Your task to perform on an android device: turn on bluetooth scan Image 0: 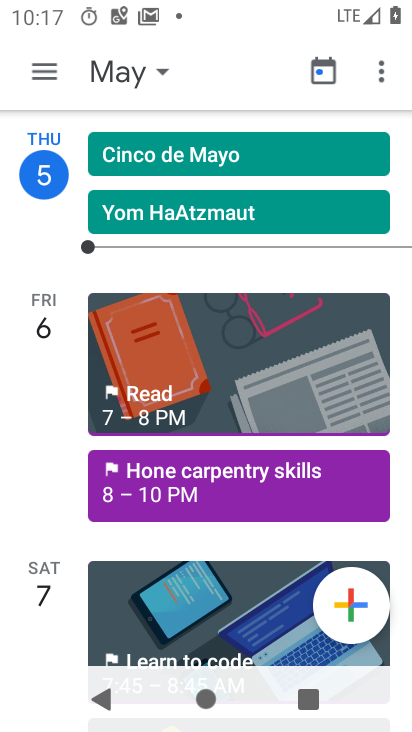
Step 0: press home button
Your task to perform on an android device: turn on bluetooth scan Image 1: 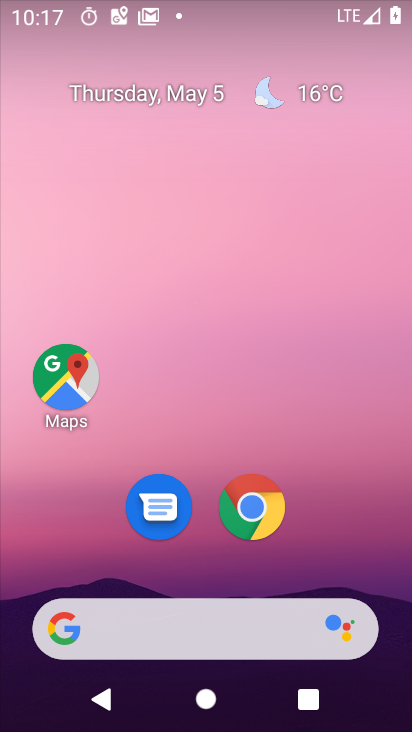
Step 1: drag from (171, 588) to (210, 141)
Your task to perform on an android device: turn on bluetooth scan Image 2: 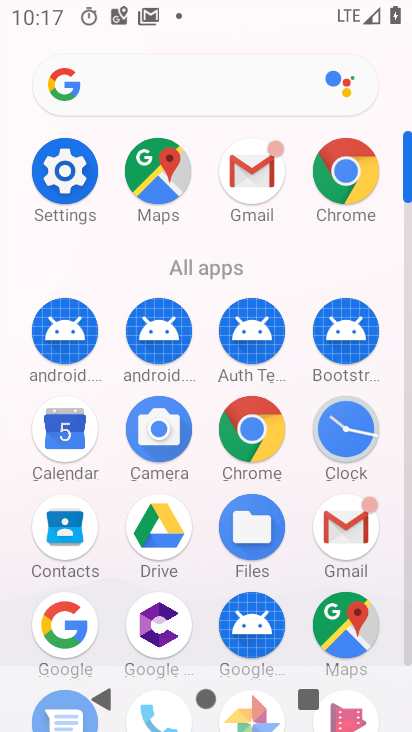
Step 2: drag from (211, 611) to (206, 223)
Your task to perform on an android device: turn on bluetooth scan Image 3: 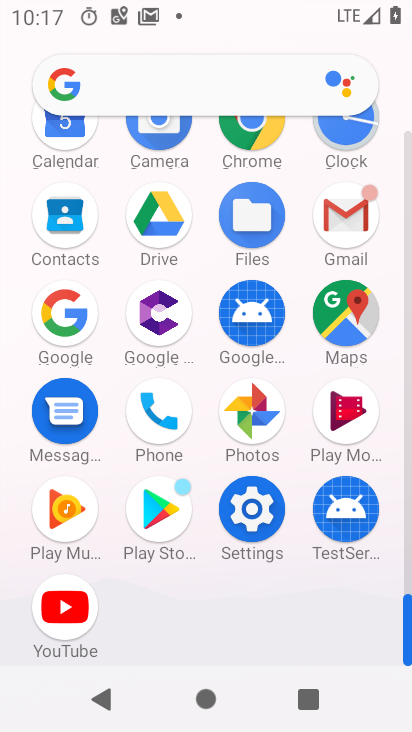
Step 3: click (258, 500)
Your task to perform on an android device: turn on bluetooth scan Image 4: 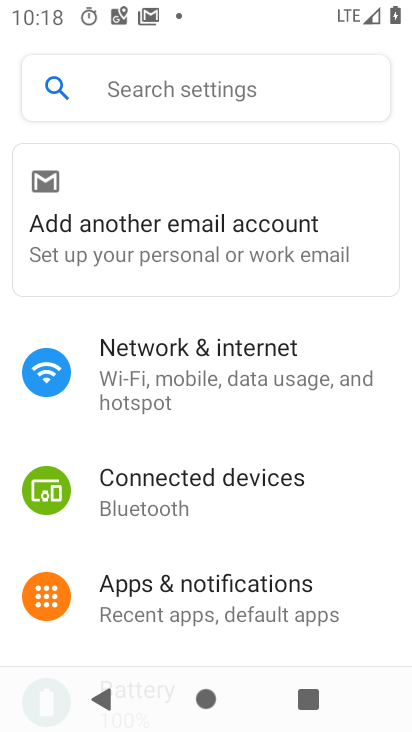
Step 4: drag from (235, 548) to (277, 251)
Your task to perform on an android device: turn on bluetooth scan Image 5: 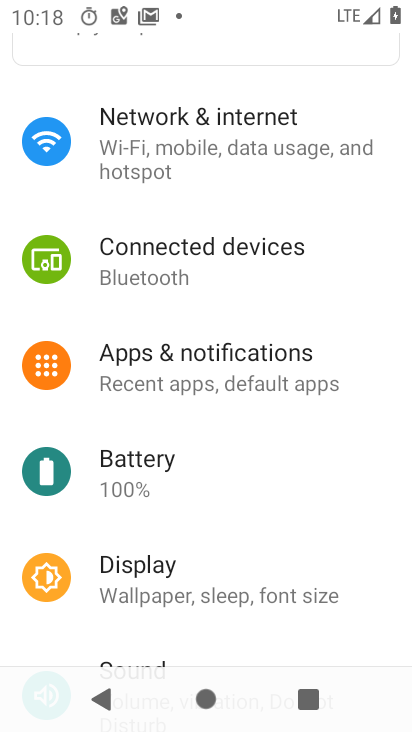
Step 5: drag from (197, 535) to (249, 198)
Your task to perform on an android device: turn on bluetooth scan Image 6: 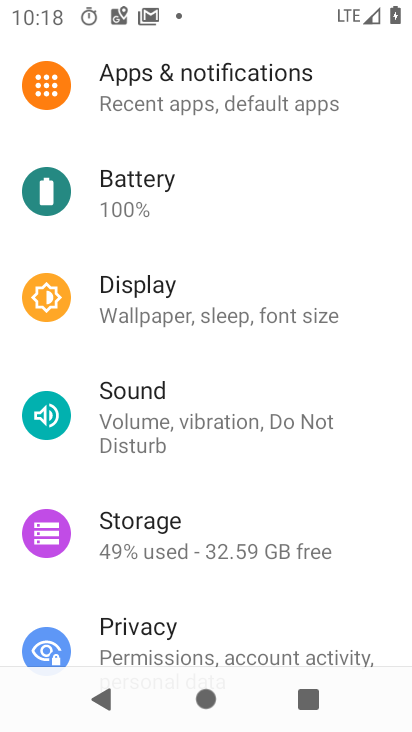
Step 6: drag from (213, 595) to (237, 322)
Your task to perform on an android device: turn on bluetooth scan Image 7: 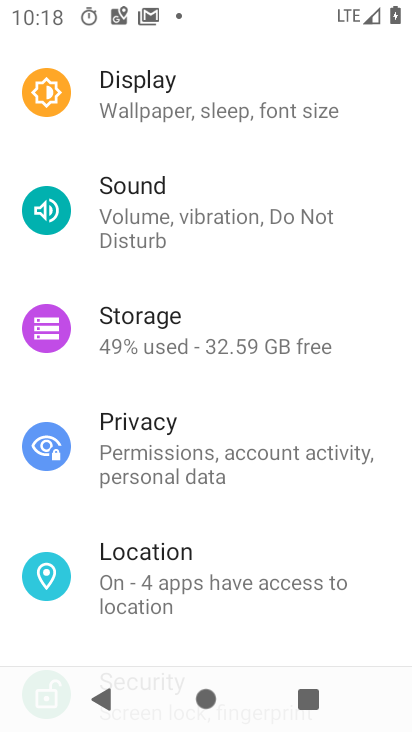
Step 7: drag from (204, 577) to (230, 346)
Your task to perform on an android device: turn on bluetooth scan Image 8: 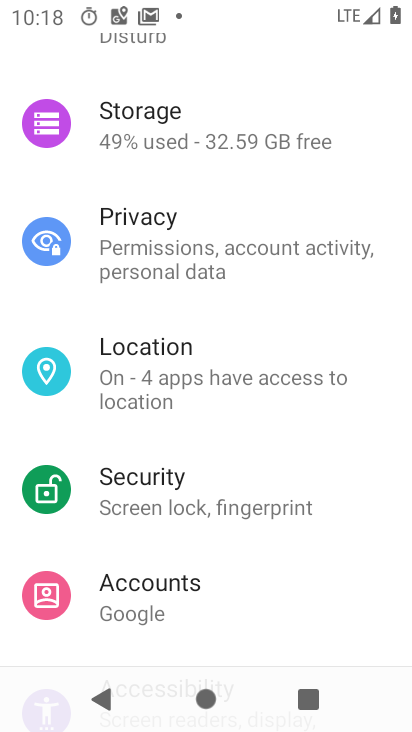
Step 8: drag from (201, 603) to (269, 283)
Your task to perform on an android device: turn on bluetooth scan Image 9: 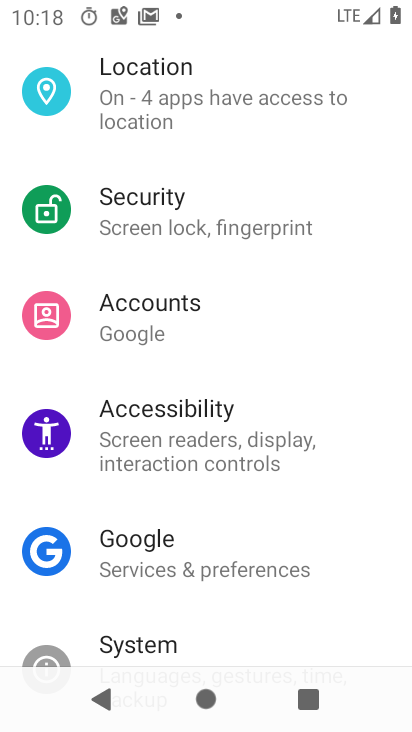
Step 9: drag from (175, 557) to (215, 342)
Your task to perform on an android device: turn on bluetooth scan Image 10: 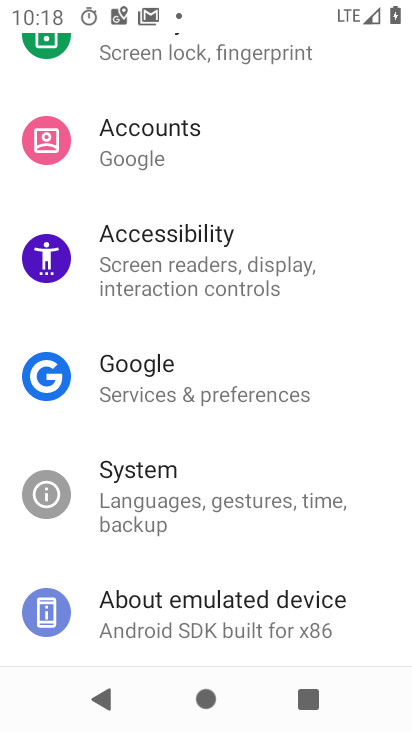
Step 10: drag from (183, 199) to (170, 629)
Your task to perform on an android device: turn on bluetooth scan Image 11: 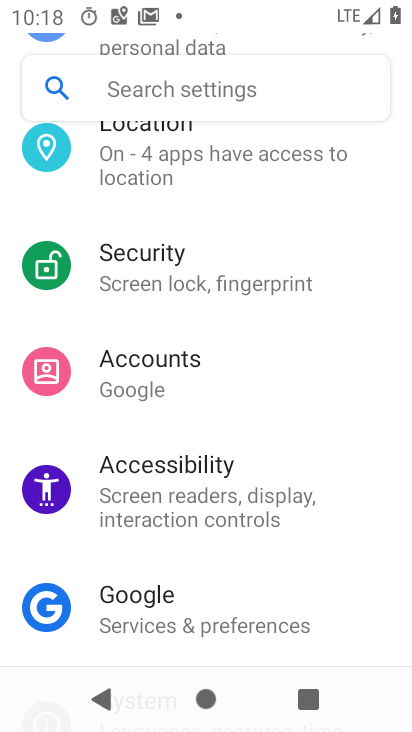
Step 11: drag from (200, 217) to (212, 562)
Your task to perform on an android device: turn on bluetooth scan Image 12: 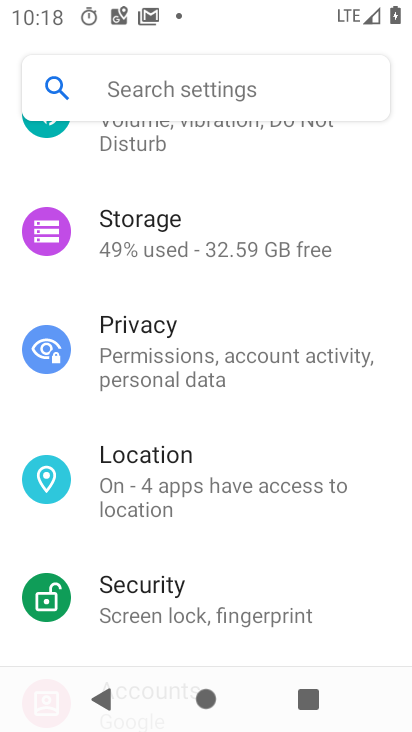
Step 12: drag from (229, 574) to (260, 234)
Your task to perform on an android device: turn on bluetooth scan Image 13: 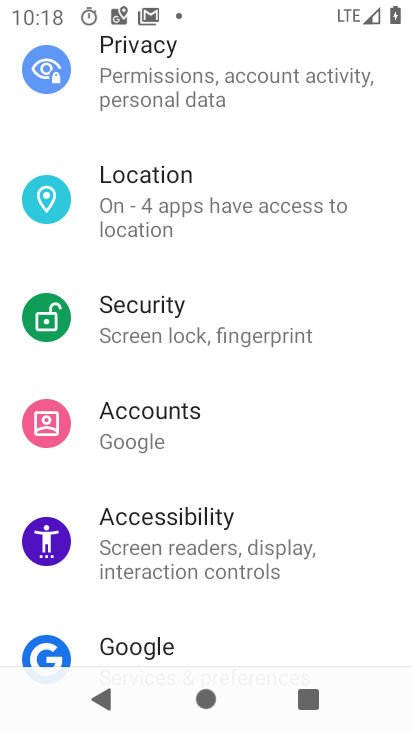
Step 13: drag from (190, 550) to (239, 619)
Your task to perform on an android device: turn on bluetooth scan Image 14: 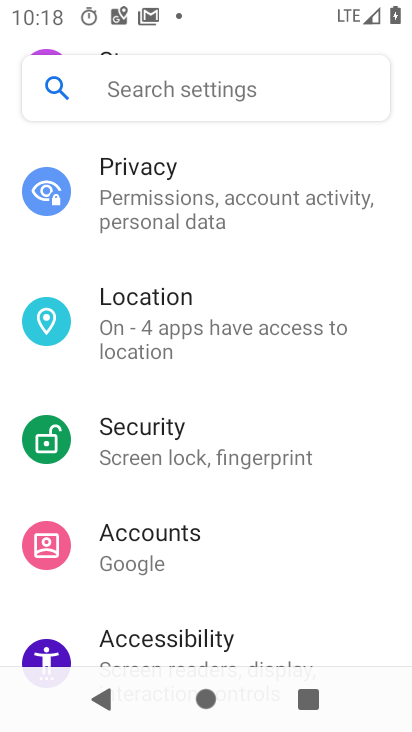
Step 14: click (167, 336)
Your task to perform on an android device: turn on bluetooth scan Image 15: 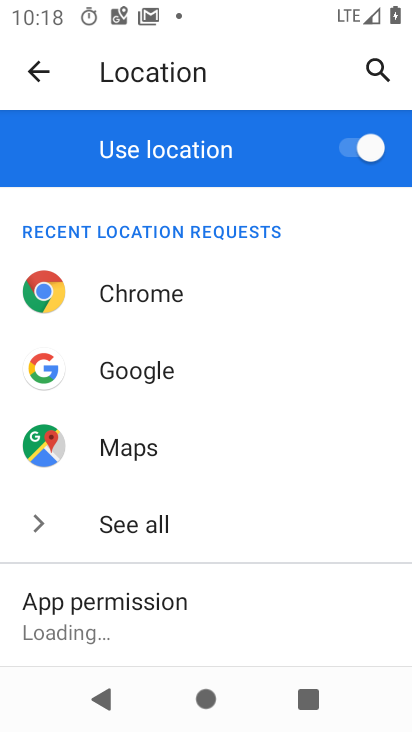
Step 15: drag from (179, 620) to (180, 315)
Your task to perform on an android device: turn on bluetooth scan Image 16: 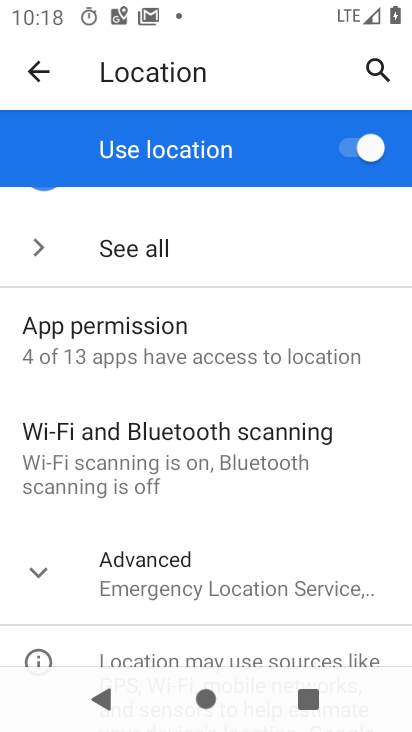
Step 16: drag from (162, 533) to (253, 316)
Your task to perform on an android device: turn on bluetooth scan Image 17: 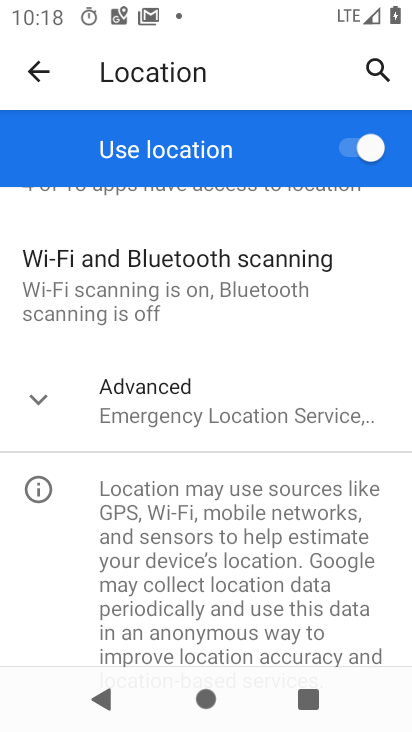
Step 17: click (72, 281)
Your task to perform on an android device: turn on bluetooth scan Image 18: 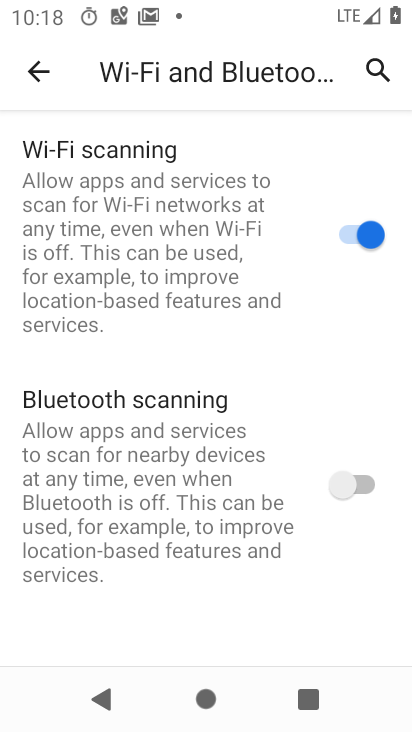
Step 18: task complete